Your task to perform on an android device: change the clock style Image 0: 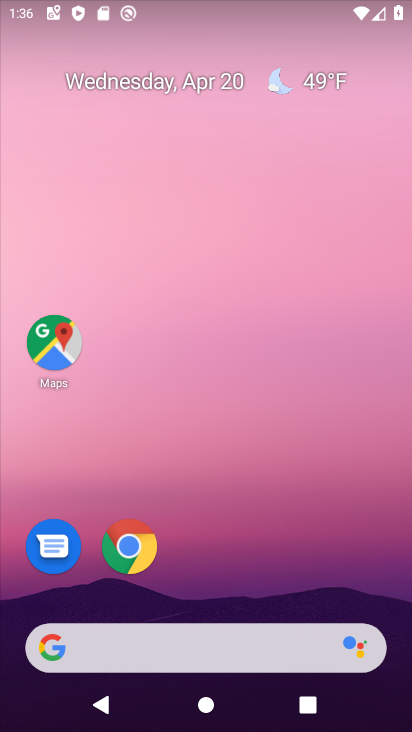
Step 0: drag from (238, 465) to (338, 41)
Your task to perform on an android device: change the clock style Image 1: 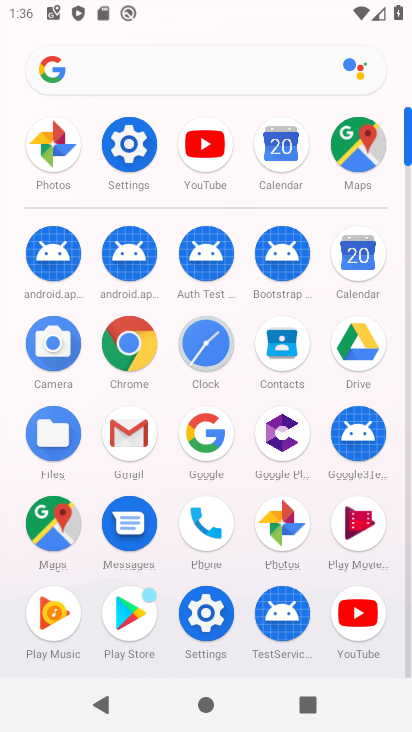
Step 1: click (201, 346)
Your task to perform on an android device: change the clock style Image 2: 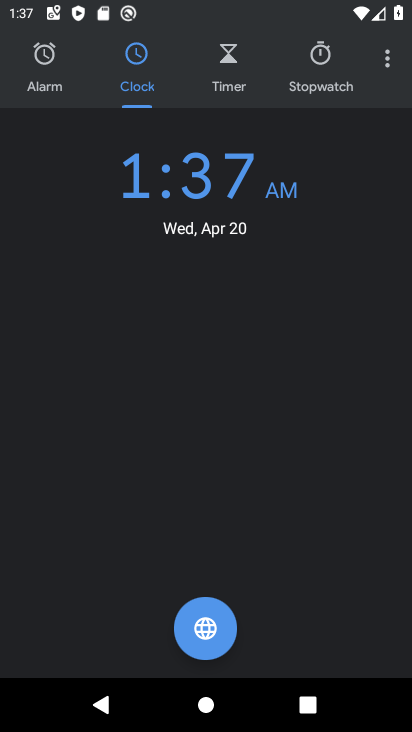
Step 2: click (379, 59)
Your task to perform on an android device: change the clock style Image 3: 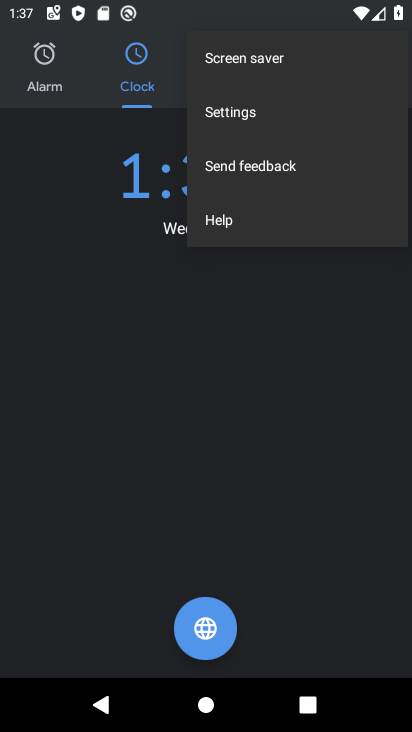
Step 3: click (231, 102)
Your task to perform on an android device: change the clock style Image 4: 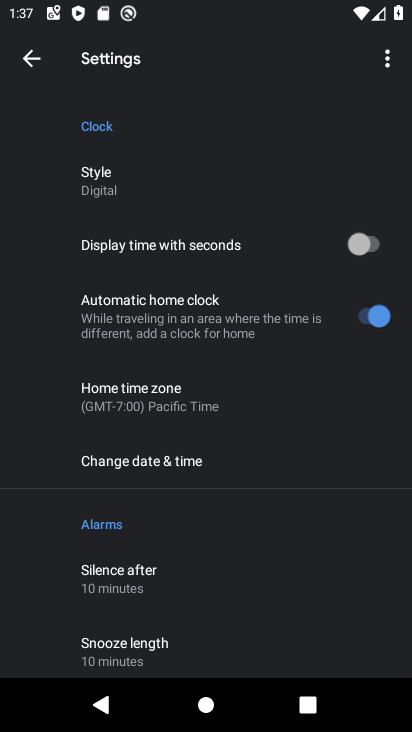
Step 4: click (161, 192)
Your task to perform on an android device: change the clock style Image 5: 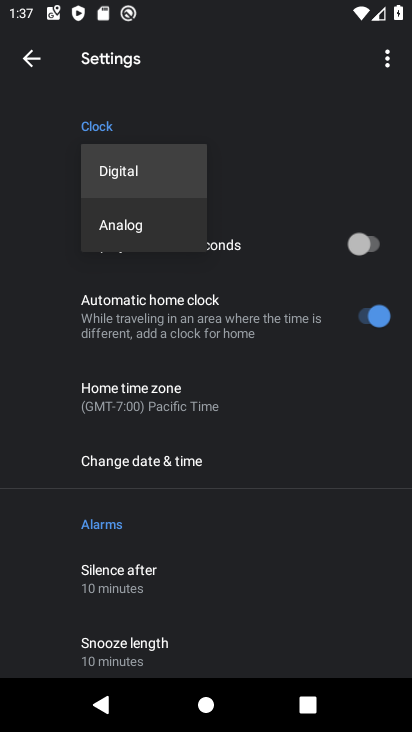
Step 5: click (139, 232)
Your task to perform on an android device: change the clock style Image 6: 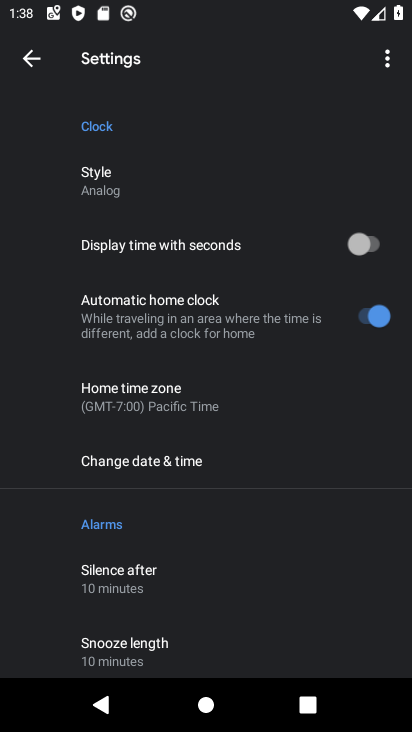
Step 6: task complete